Your task to perform on an android device: Open Google Image 0: 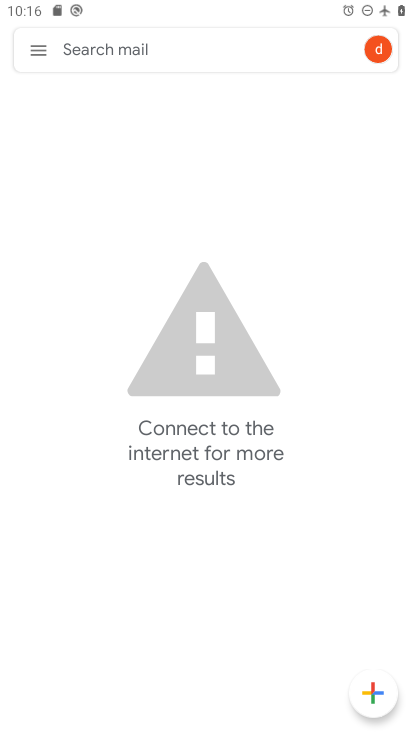
Step 0: press home button
Your task to perform on an android device: Open Google Image 1: 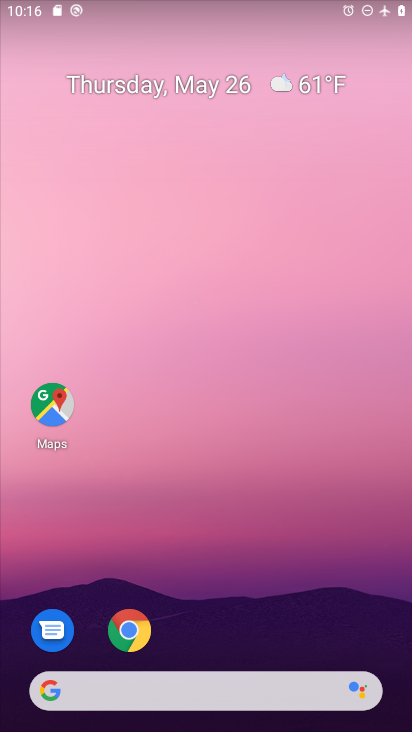
Step 1: click (227, 681)
Your task to perform on an android device: Open Google Image 2: 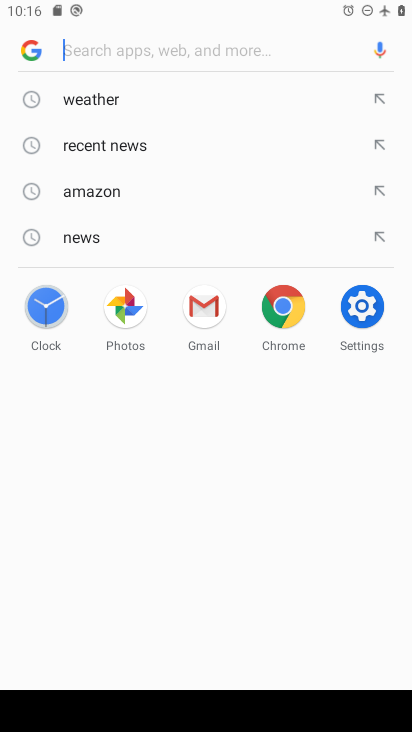
Step 2: task complete